Your task to perform on an android device: toggle show notifications on the lock screen Image 0: 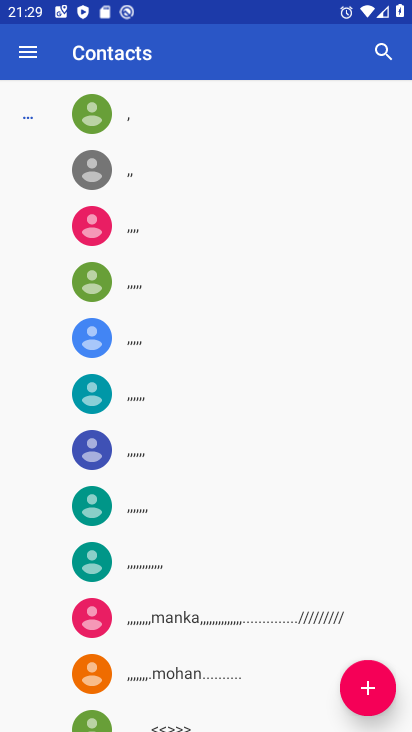
Step 0: press home button
Your task to perform on an android device: toggle show notifications on the lock screen Image 1: 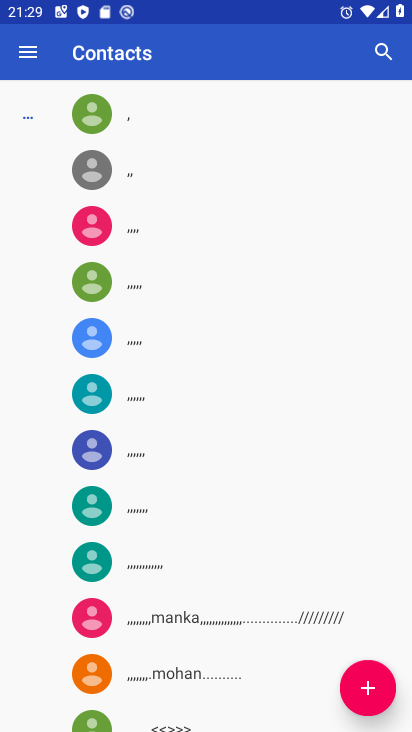
Step 1: press home button
Your task to perform on an android device: toggle show notifications on the lock screen Image 2: 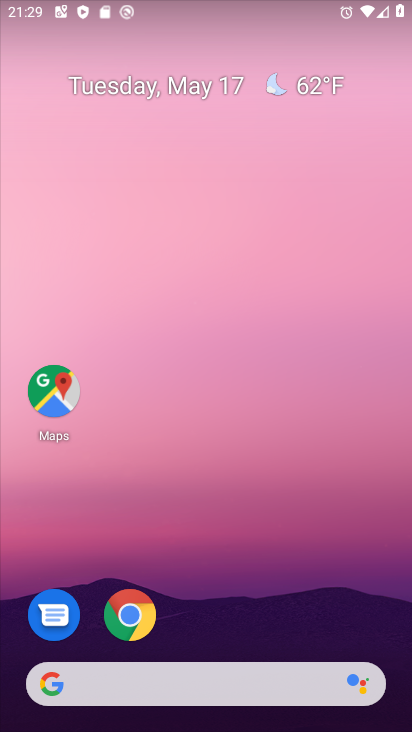
Step 2: drag from (323, 615) to (335, 111)
Your task to perform on an android device: toggle show notifications on the lock screen Image 3: 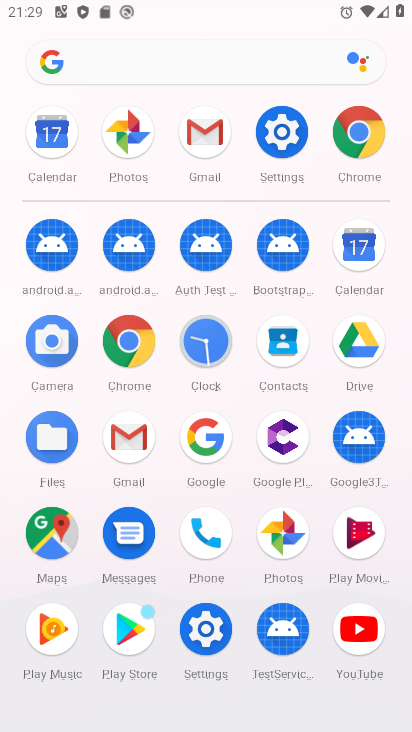
Step 3: click (277, 145)
Your task to perform on an android device: toggle show notifications on the lock screen Image 4: 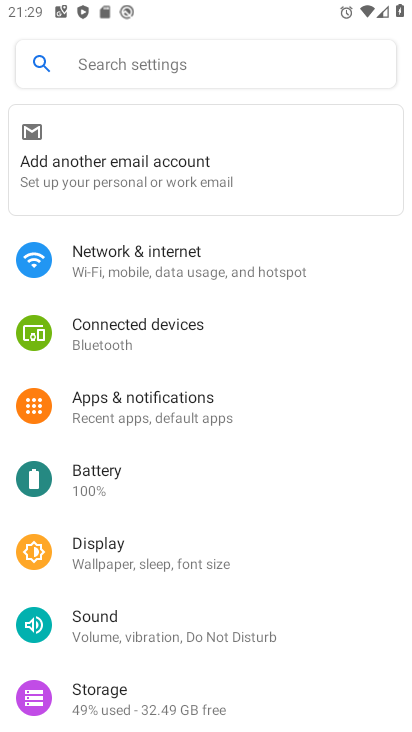
Step 4: click (120, 413)
Your task to perform on an android device: toggle show notifications on the lock screen Image 5: 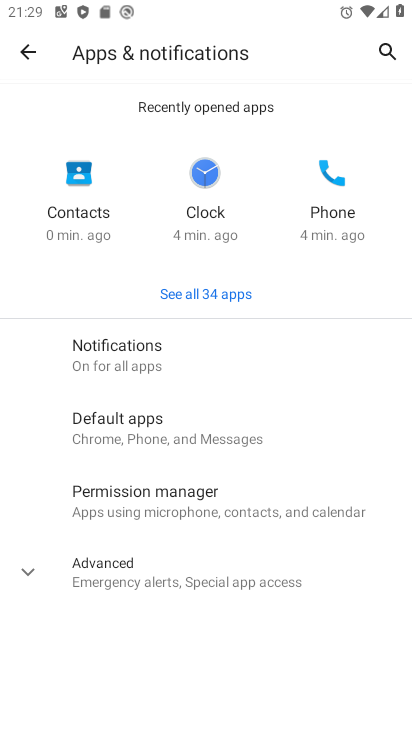
Step 5: click (142, 357)
Your task to perform on an android device: toggle show notifications on the lock screen Image 6: 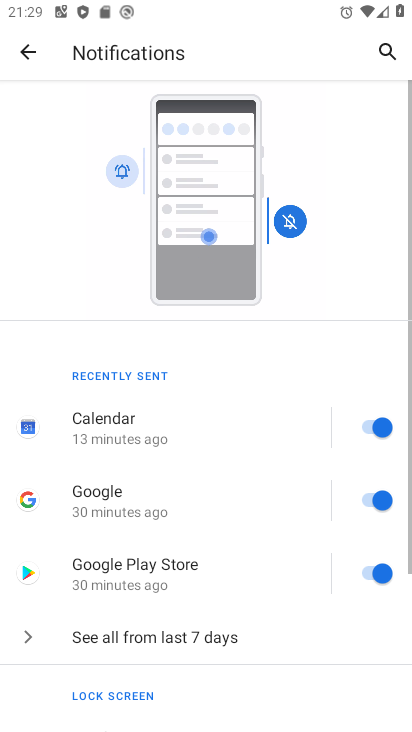
Step 6: drag from (170, 645) to (210, 128)
Your task to perform on an android device: toggle show notifications on the lock screen Image 7: 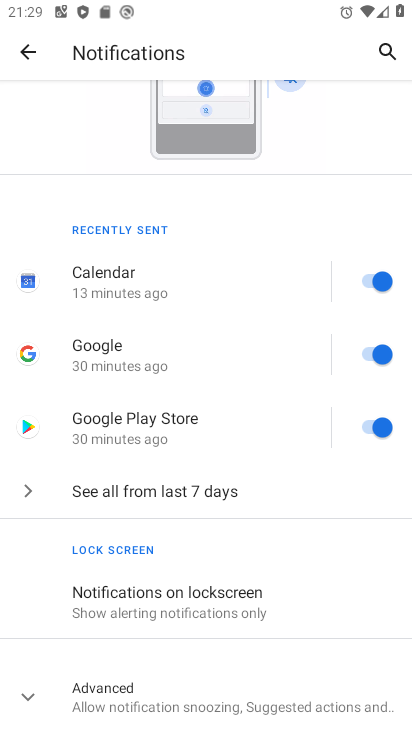
Step 7: click (139, 590)
Your task to perform on an android device: toggle show notifications on the lock screen Image 8: 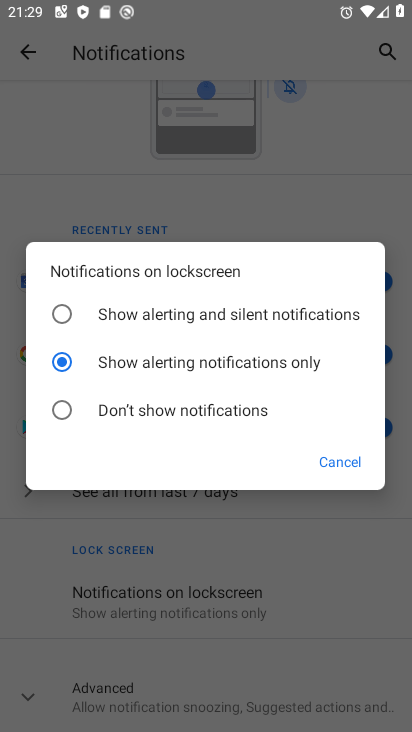
Step 8: click (156, 391)
Your task to perform on an android device: toggle show notifications on the lock screen Image 9: 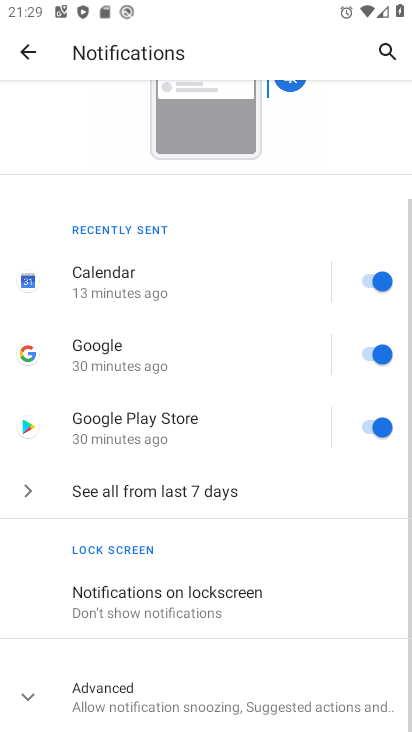
Step 9: task complete